Your task to perform on an android device: Go to Reddit.com Image 0: 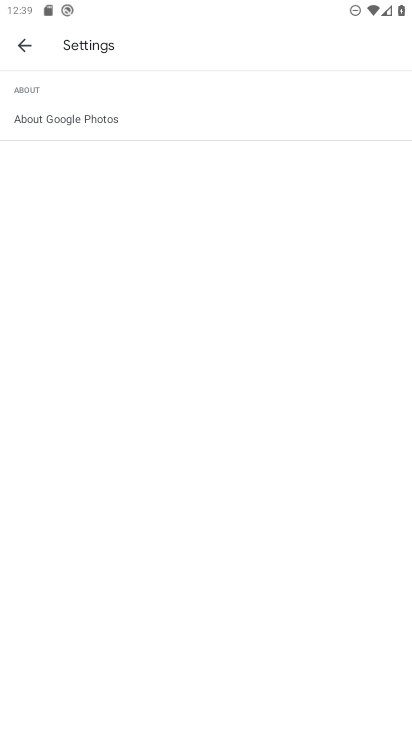
Step 0: press home button
Your task to perform on an android device: Go to Reddit.com Image 1: 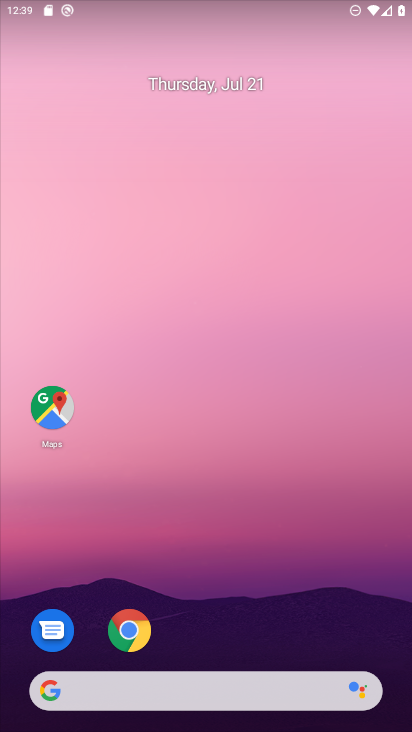
Step 1: click (139, 621)
Your task to perform on an android device: Go to Reddit.com Image 2: 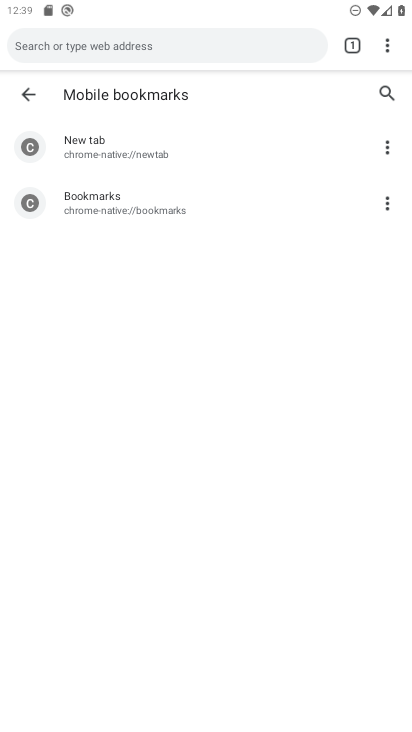
Step 2: click (191, 39)
Your task to perform on an android device: Go to Reddit.com Image 3: 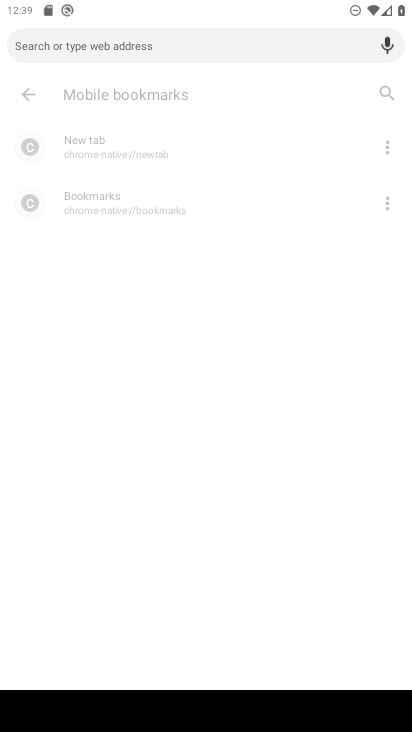
Step 3: type "Reddit.com"
Your task to perform on an android device: Go to Reddit.com Image 4: 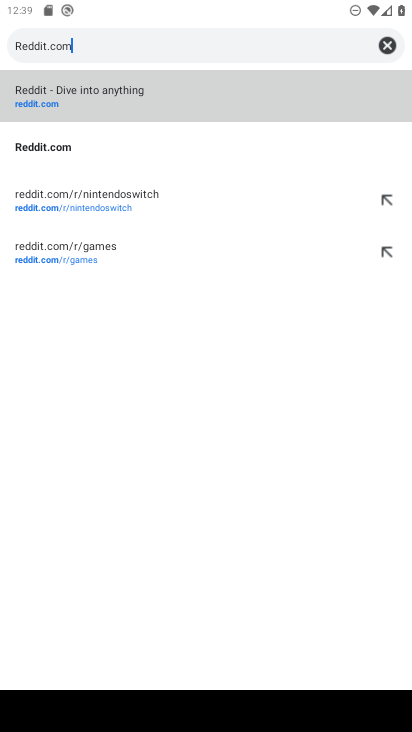
Step 4: click (41, 146)
Your task to perform on an android device: Go to Reddit.com Image 5: 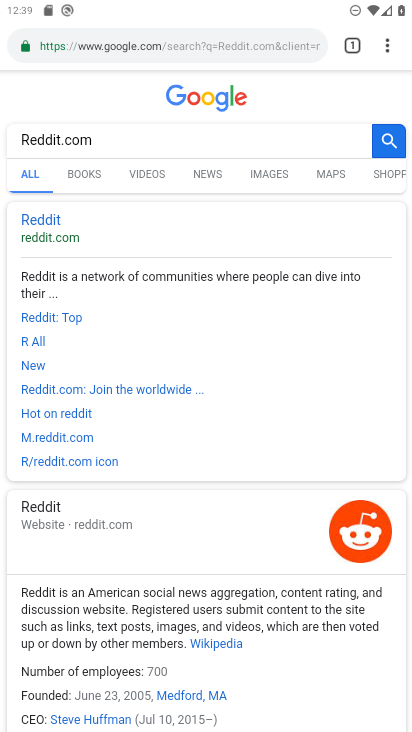
Step 5: task complete